Your task to perform on an android device: Turn off the flashlight Image 0: 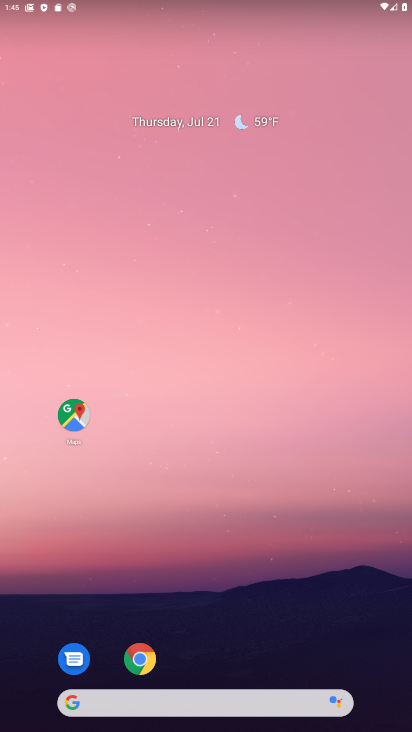
Step 0: drag from (311, 566) to (225, 68)
Your task to perform on an android device: Turn off the flashlight Image 1: 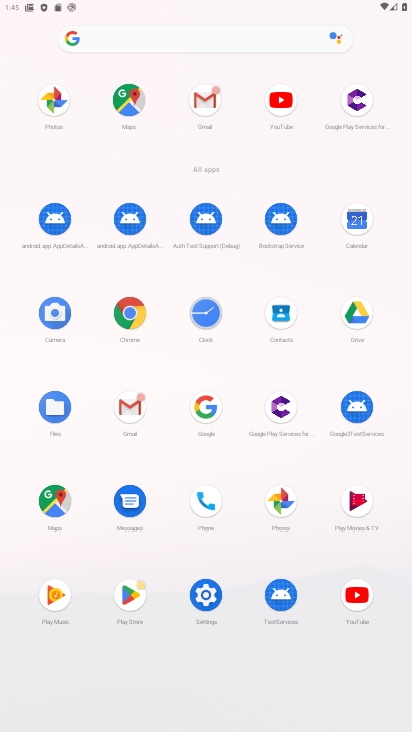
Step 1: click (203, 585)
Your task to perform on an android device: Turn off the flashlight Image 2: 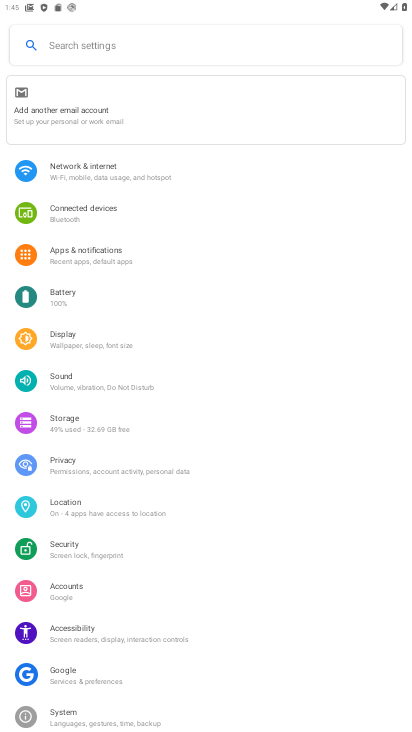
Step 2: click (80, 348)
Your task to perform on an android device: Turn off the flashlight Image 3: 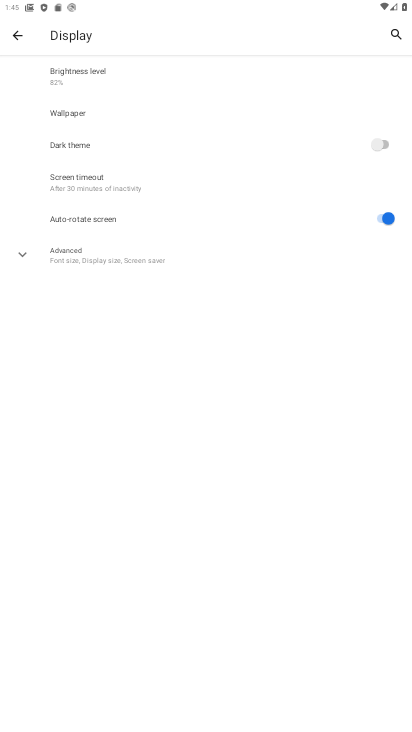
Step 3: task complete